Your task to perform on an android device: check storage Image 0: 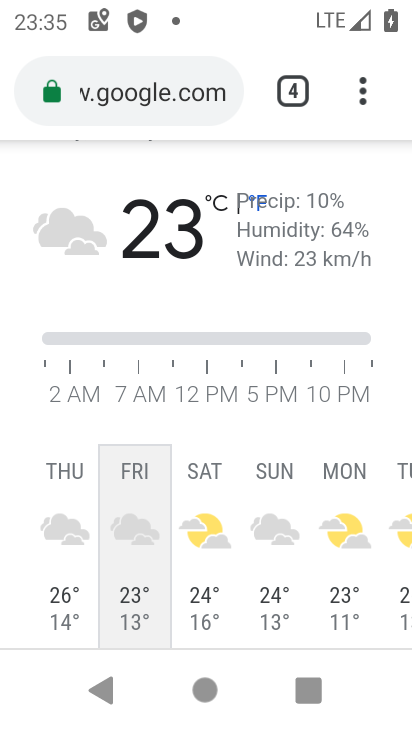
Step 0: press home button
Your task to perform on an android device: check storage Image 1: 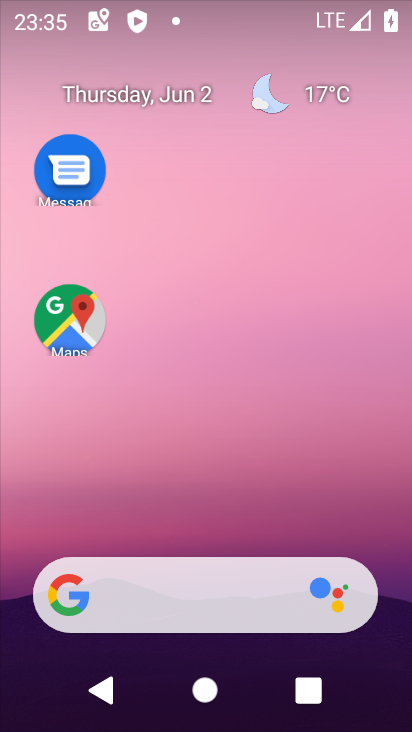
Step 1: drag from (275, 490) to (265, 190)
Your task to perform on an android device: check storage Image 2: 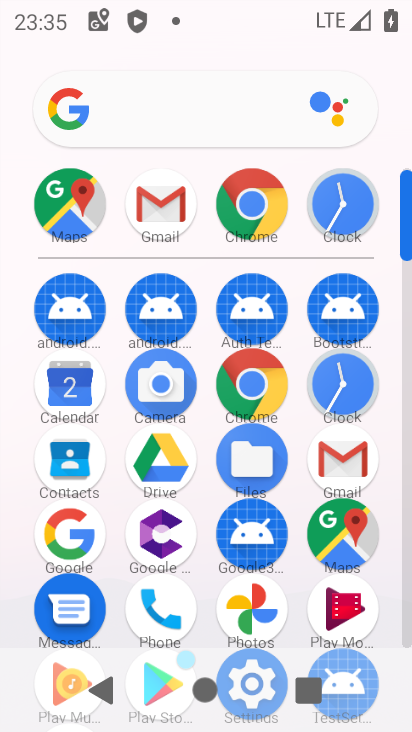
Step 2: click (408, 615)
Your task to perform on an android device: check storage Image 3: 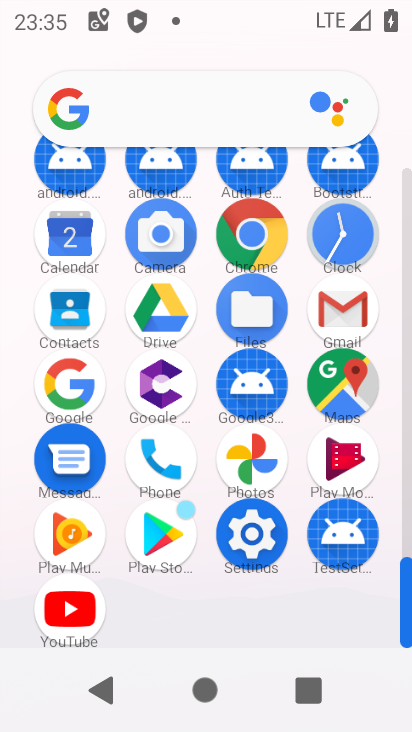
Step 3: click (247, 537)
Your task to perform on an android device: check storage Image 4: 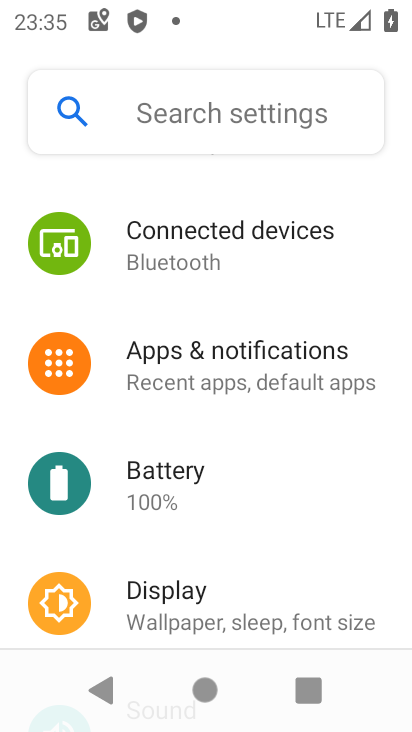
Step 4: drag from (248, 583) to (367, 179)
Your task to perform on an android device: check storage Image 5: 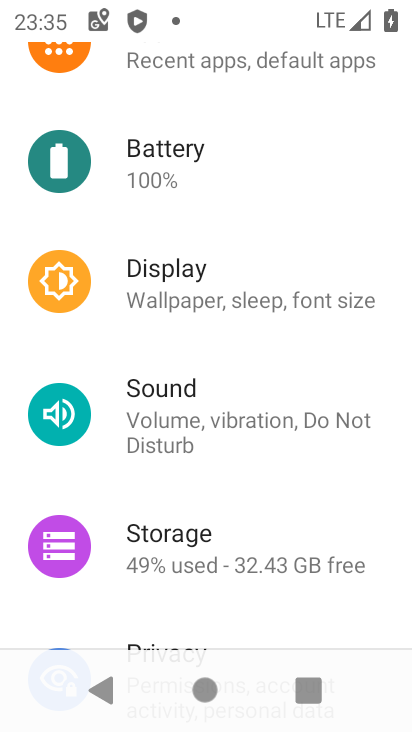
Step 5: click (148, 526)
Your task to perform on an android device: check storage Image 6: 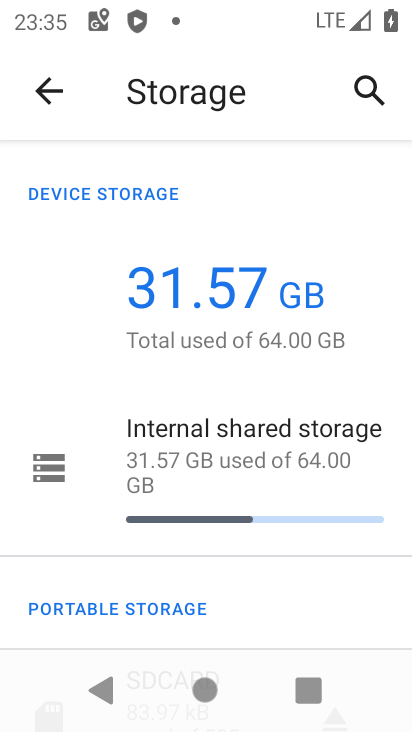
Step 6: task complete